Your task to perform on an android device: Go to CNN.com Image 0: 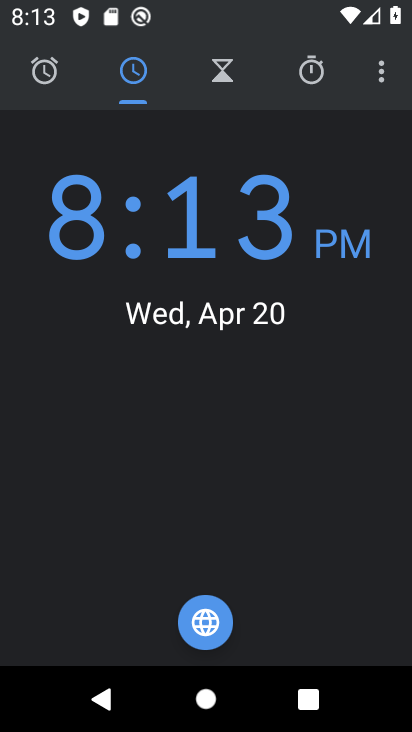
Step 0: press home button
Your task to perform on an android device: Go to CNN.com Image 1: 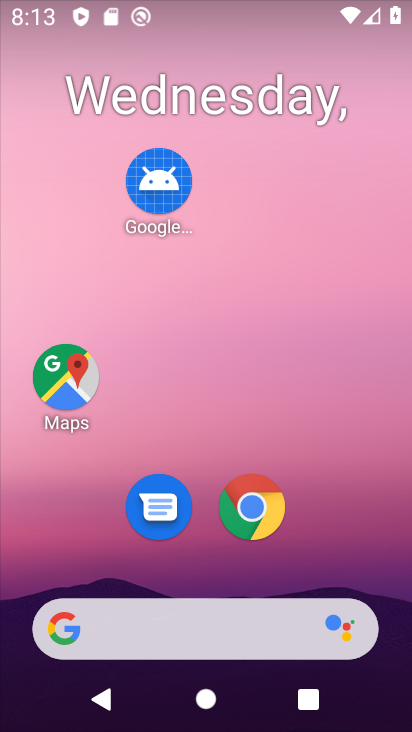
Step 1: click (272, 506)
Your task to perform on an android device: Go to CNN.com Image 2: 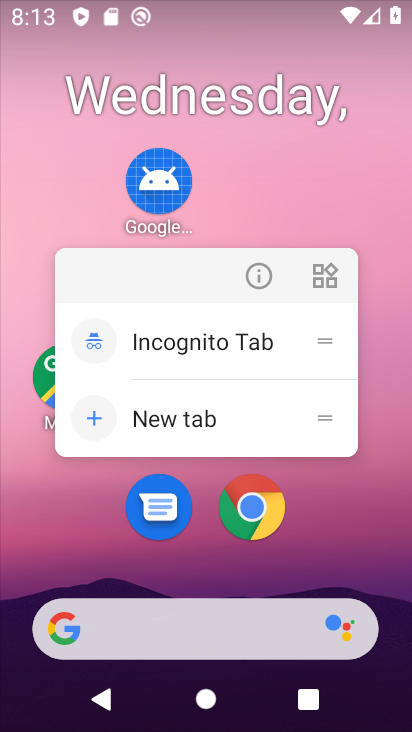
Step 2: click (260, 509)
Your task to perform on an android device: Go to CNN.com Image 3: 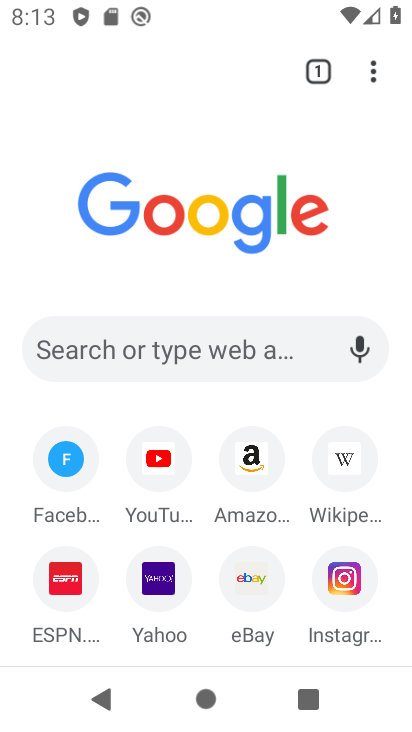
Step 3: click (221, 350)
Your task to perform on an android device: Go to CNN.com Image 4: 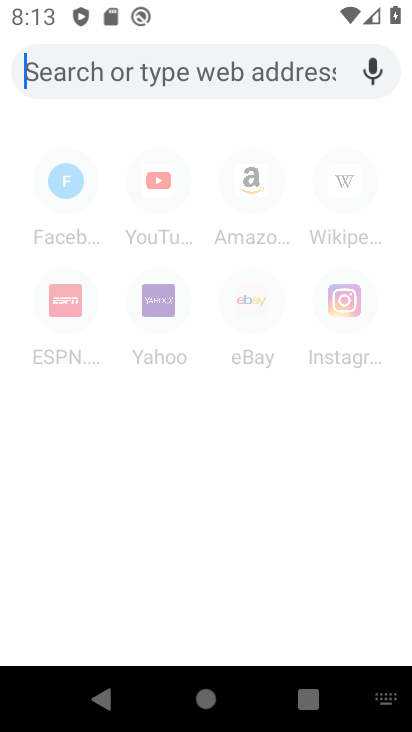
Step 4: type "cnn,com"
Your task to perform on an android device: Go to CNN.com Image 5: 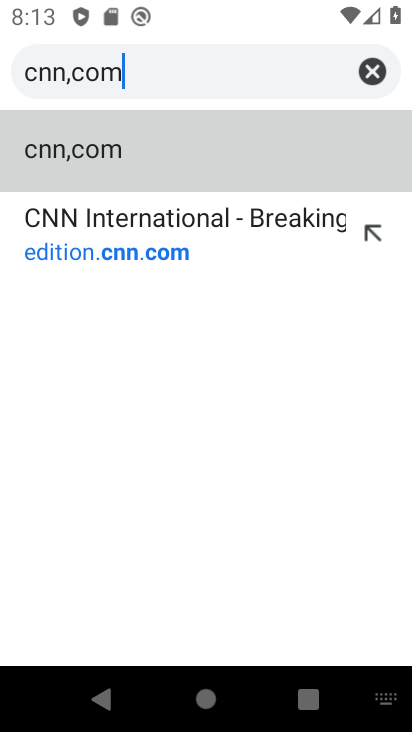
Step 5: click (196, 247)
Your task to perform on an android device: Go to CNN.com Image 6: 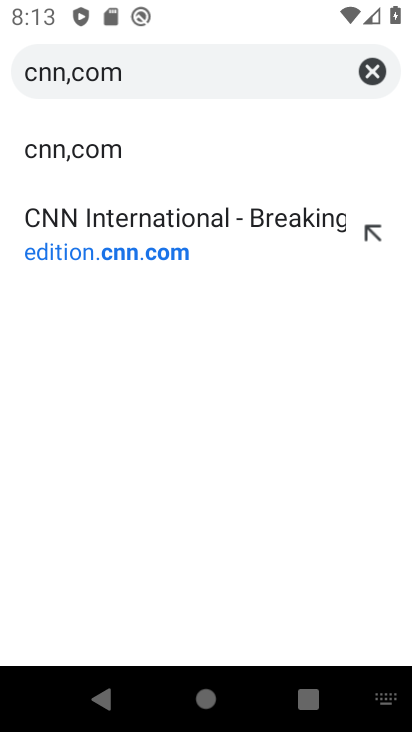
Step 6: click (227, 222)
Your task to perform on an android device: Go to CNN.com Image 7: 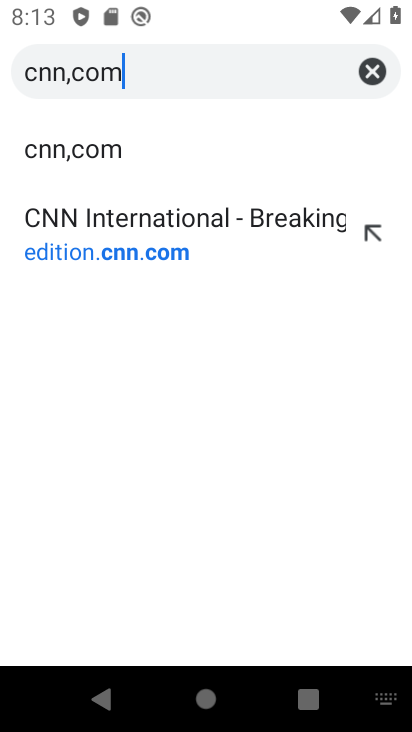
Step 7: click (100, 251)
Your task to perform on an android device: Go to CNN.com Image 8: 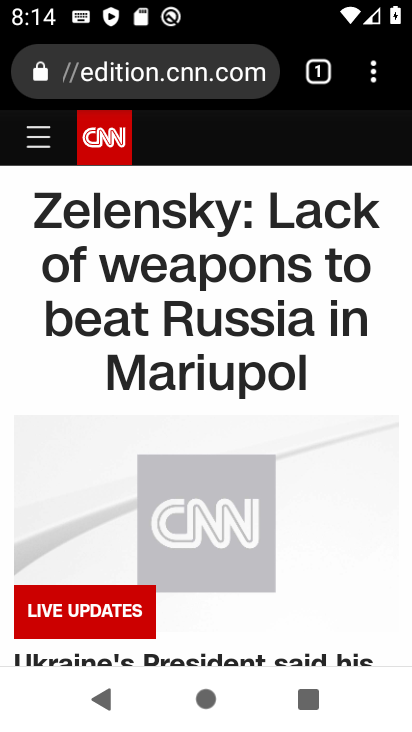
Step 8: task complete